Your task to perform on an android device: Open network settings Image 0: 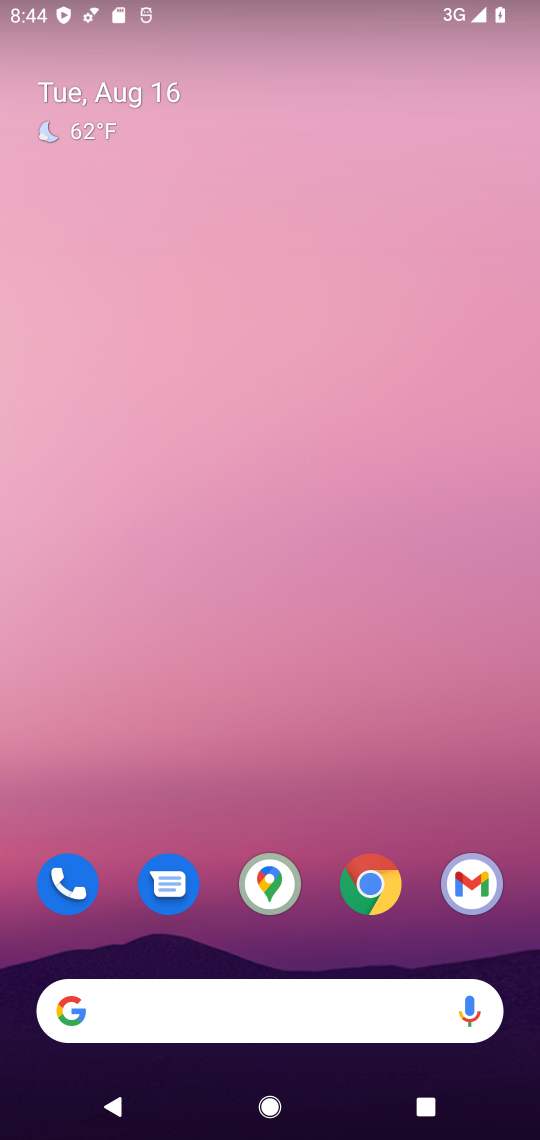
Step 0: drag from (425, 931) to (400, 148)
Your task to perform on an android device: Open network settings Image 1: 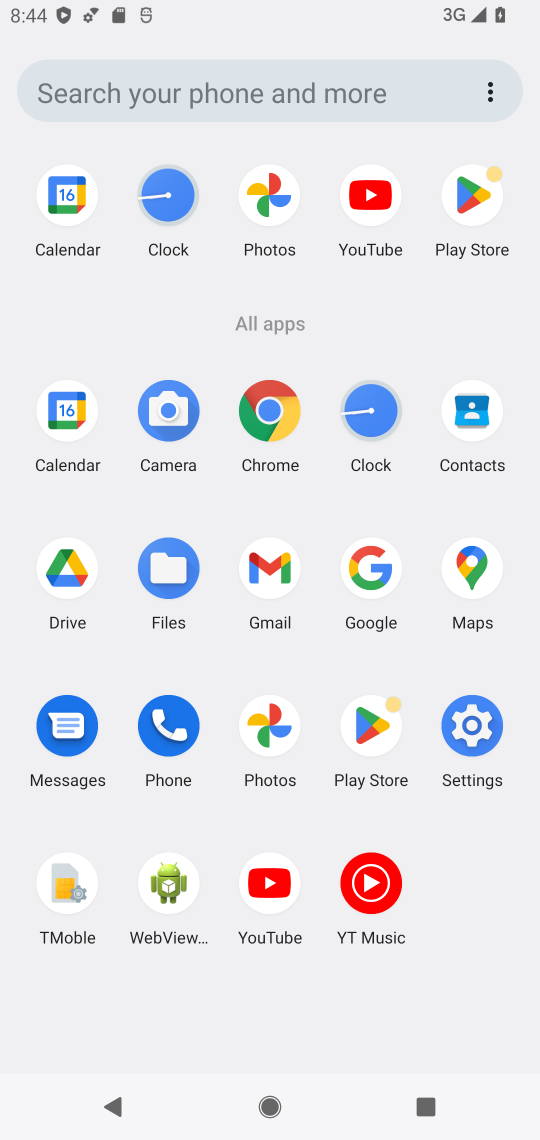
Step 1: click (473, 724)
Your task to perform on an android device: Open network settings Image 2: 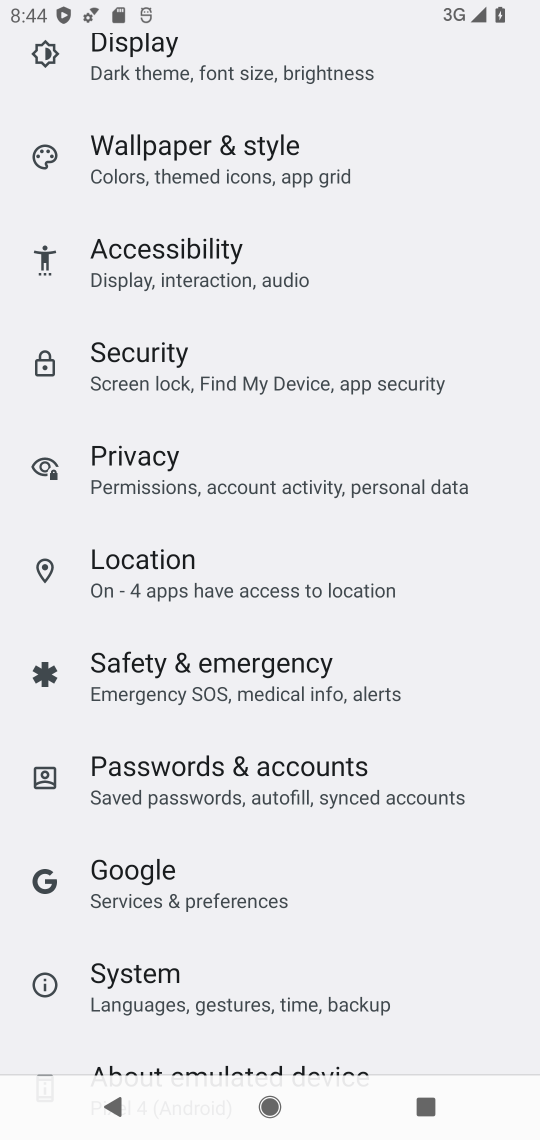
Step 2: drag from (426, 138) to (414, 581)
Your task to perform on an android device: Open network settings Image 3: 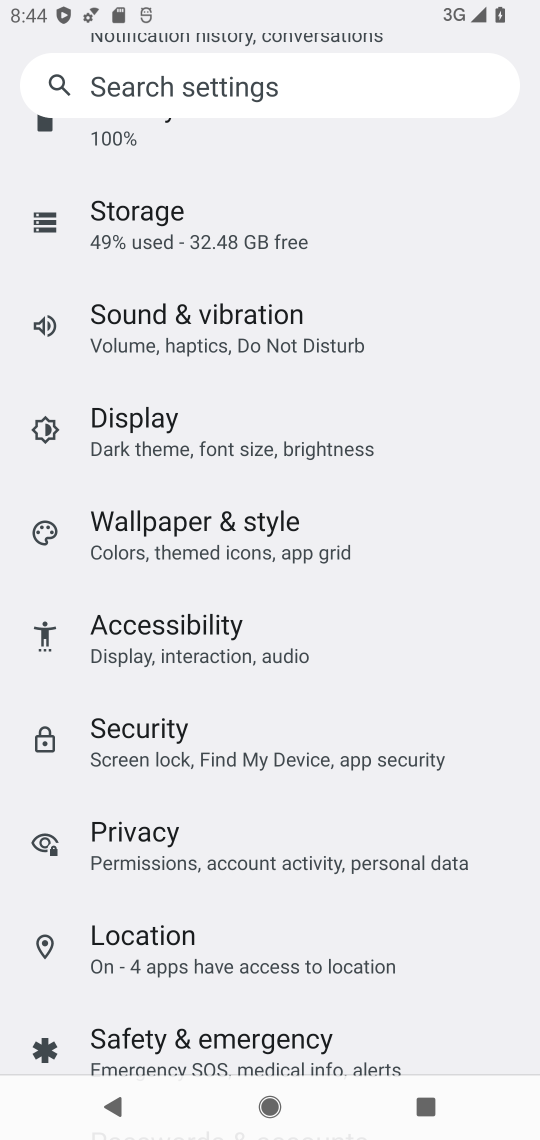
Step 3: drag from (407, 223) to (370, 621)
Your task to perform on an android device: Open network settings Image 4: 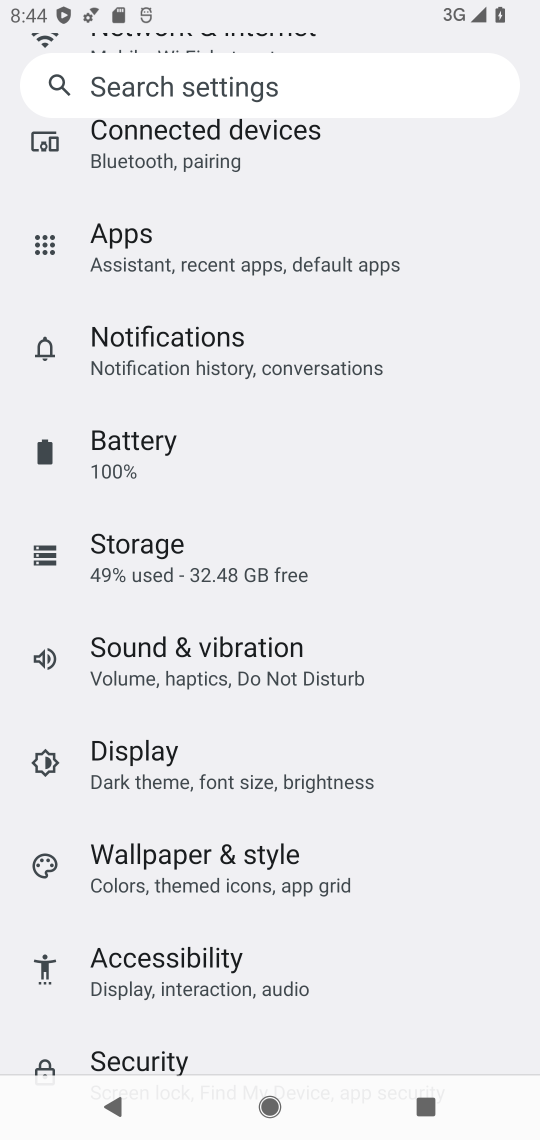
Step 4: drag from (404, 199) to (373, 591)
Your task to perform on an android device: Open network settings Image 5: 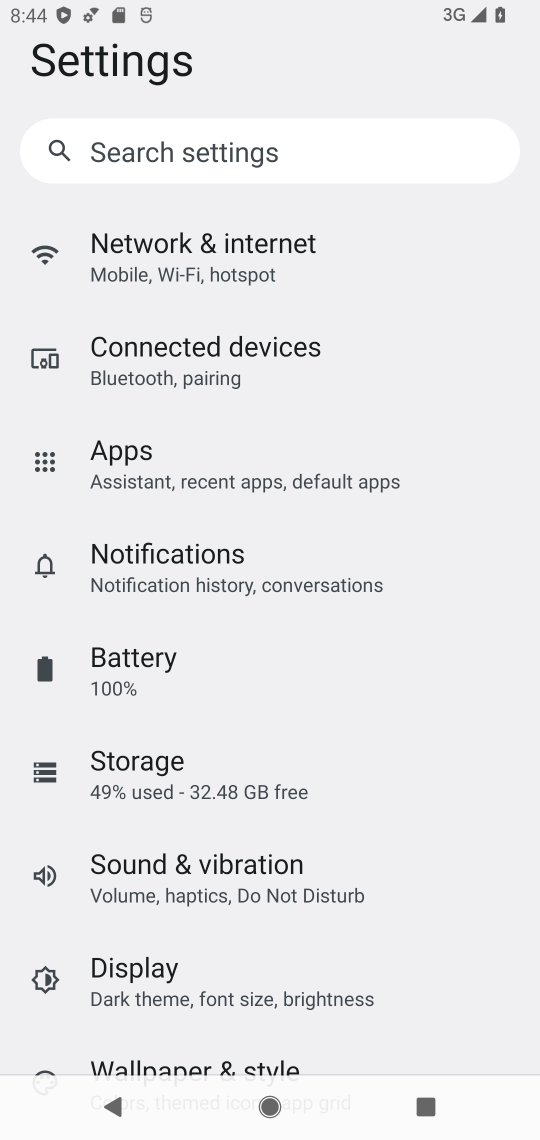
Step 5: click (167, 257)
Your task to perform on an android device: Open network settings Image 6: 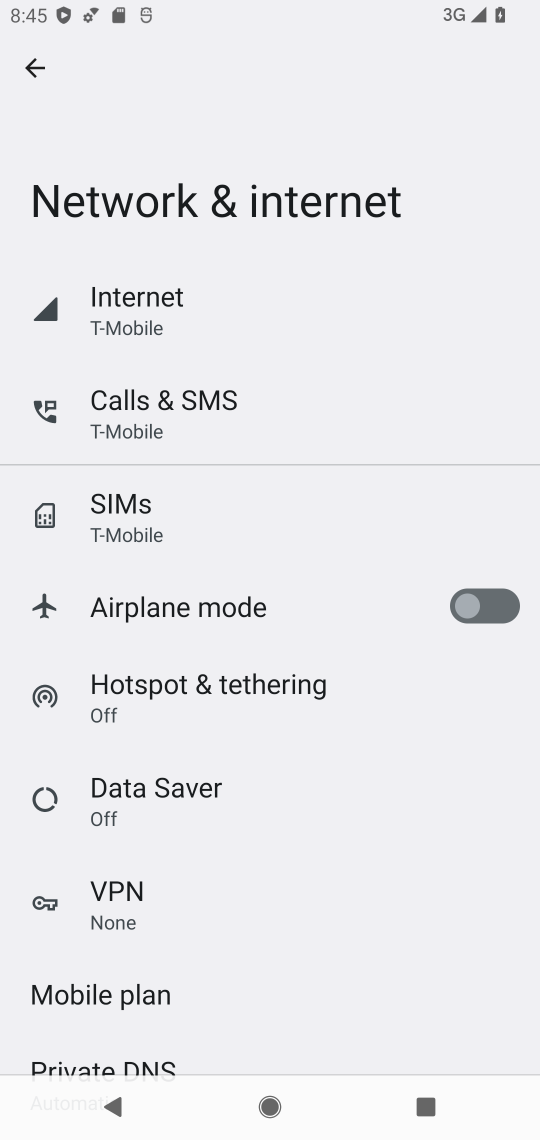
Step 6: click (154, 307)
Your task to perform on an android device: Open network settings Image 7: 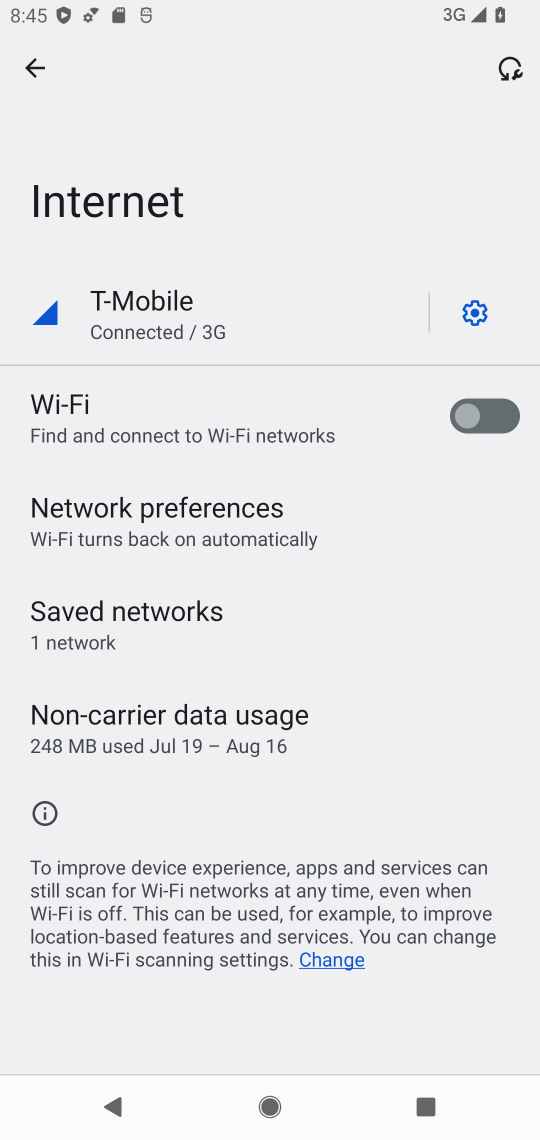
Step 7: task complete